Your task to perform on an android device: open chrome and create a bookmark for the current page Image 0: 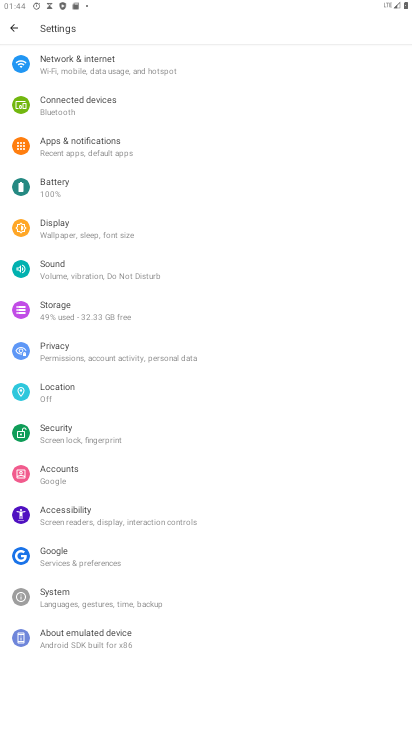
Step 0: press home button
Your task to perform on an android device: open chrome and create a bookmark for the current page Image 1: 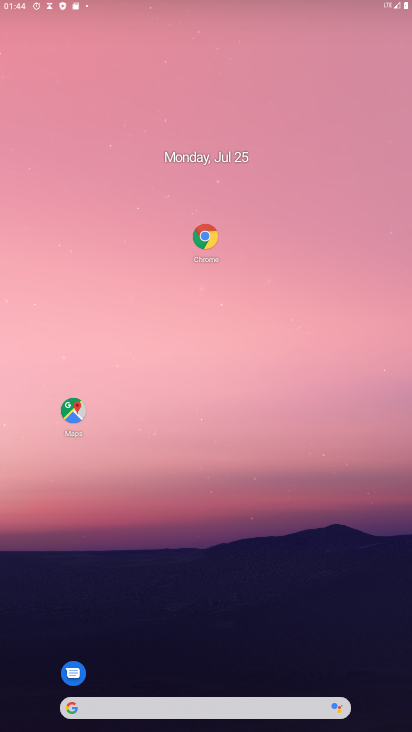
Step 1: drag from (124, 708) to (99, 0)
Your task to perform on an android device: open chrome and create a bookmark for the current page Image 2: 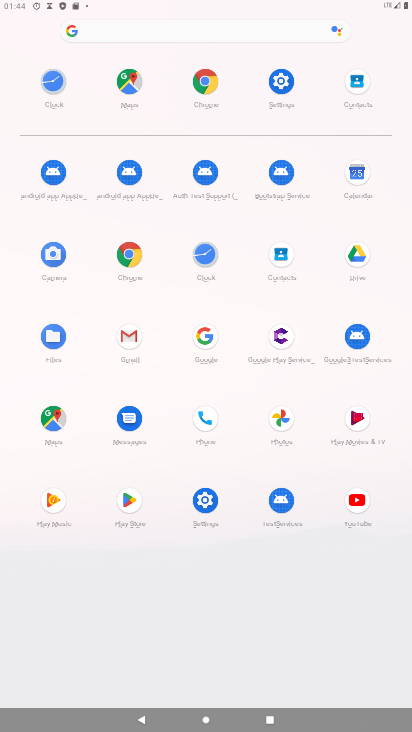
Step 2: click (125, 253)
Your task to perform on an android device: open chrome and create a bookmark for the current page Image 3: 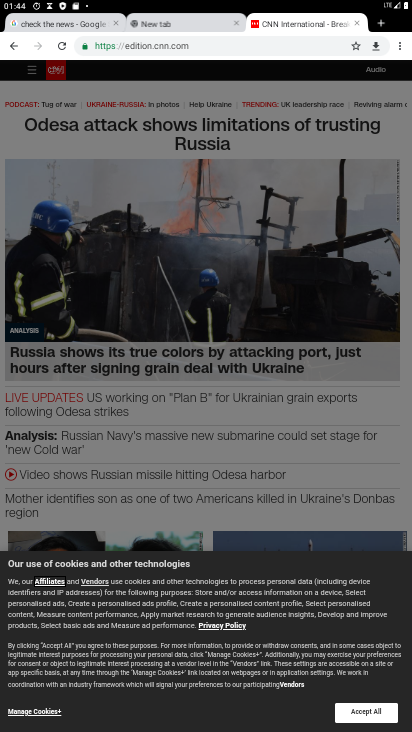
Step 3: drag from (400, 40) to (153, 75)
Your task to perform on an android device: open chrome and create a bookmark for the current page Image 4: 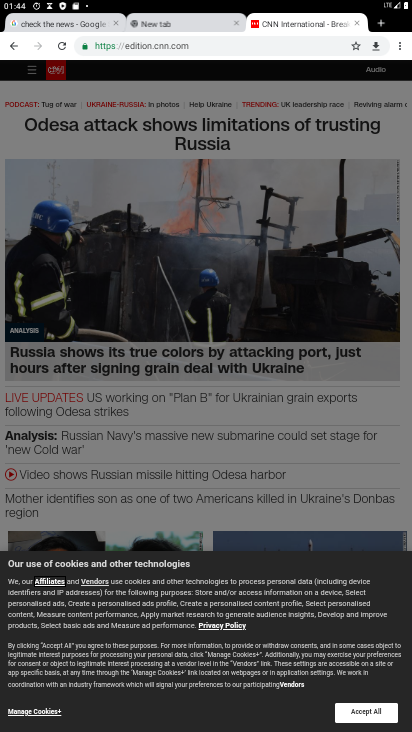
Step 4: click (170, 63)
Your task to perform on an android device: open chrome and create a bookmark for the current page Image 5: 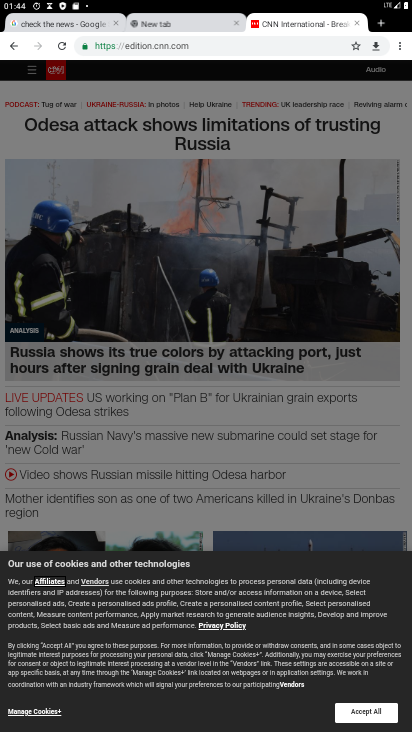
Step 5: click (353, 45)
Your task to perform on an android device: open chrome and create a bookmark for the current page Image 6: 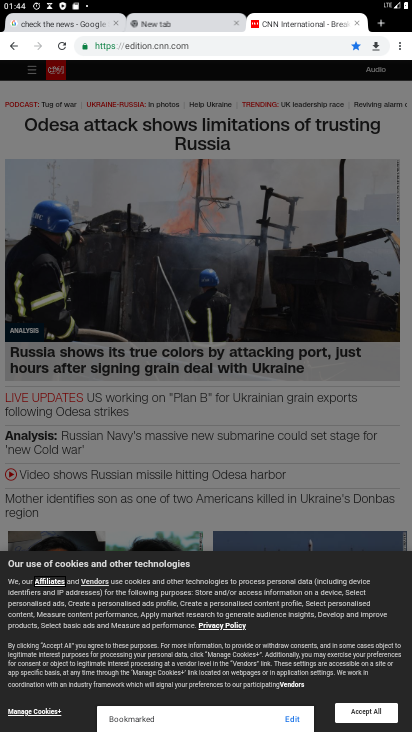
Step 6: task complete